Your task to perform on an android device: Search for vegetarian restaurants on Maps Image 0: 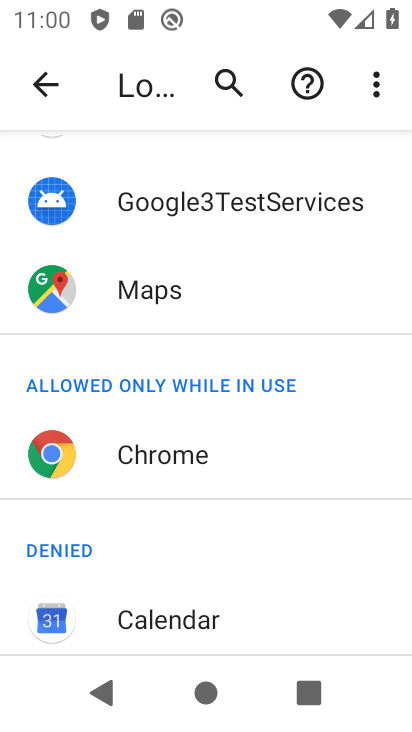
Step 0: press home button
Your task to perform on an android device: Search for vegetarian restaurants on Maps Image 1: 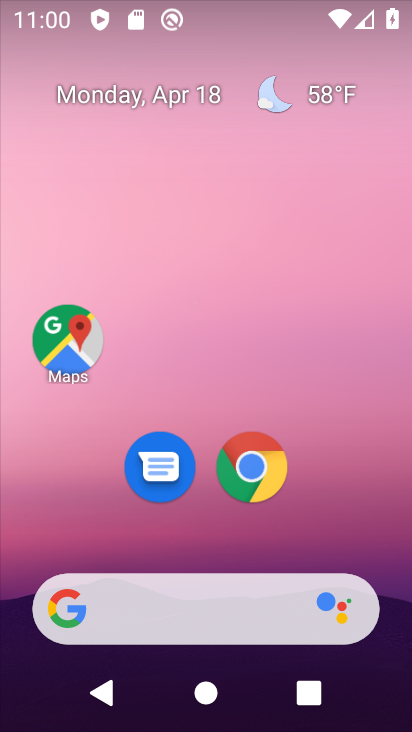
Step 1: click (77, 347)
Your task to perform on an android device: Search for vegetarian restaurants on Maps Image 2: 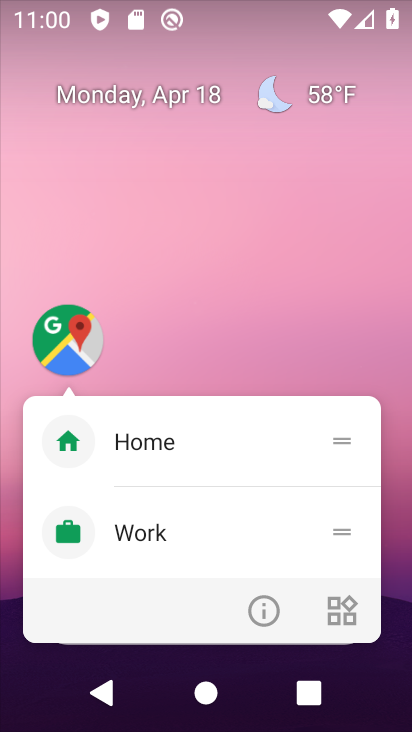
Step 2: click (73, 341)
Your task to perform on an android device: Search for vegetarian restaurants on Maps Image 3: 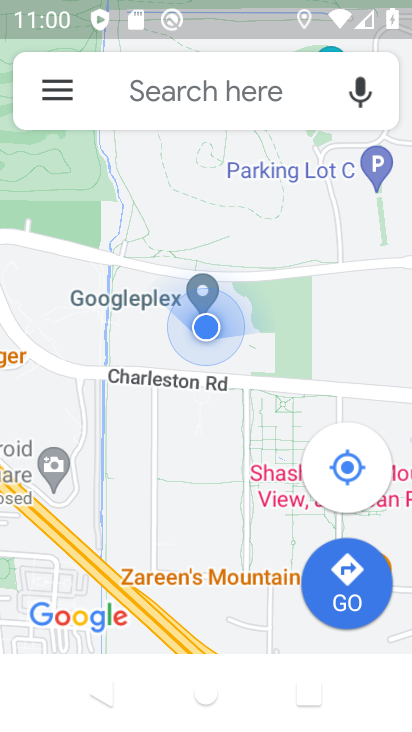
Step 3: click (202, 92)
Your task to perform on an android device: Search for vegetarian restaurants on Maps Image 4: 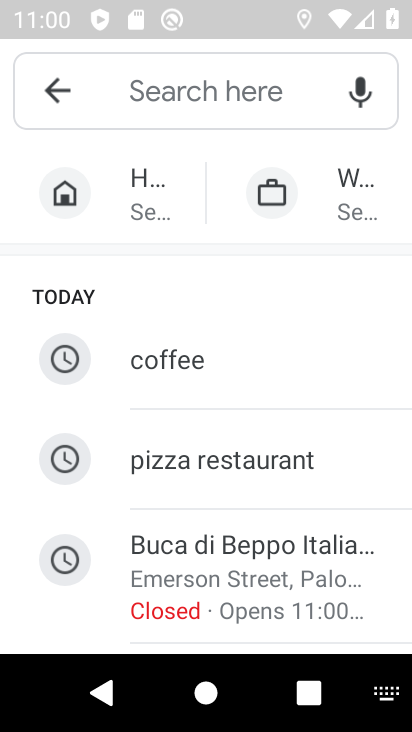
Step 4: drag from (109, 513) to (118, 244)
Your task to perform on an android device: Search for vegetarian restaurants on Maps Image 5: 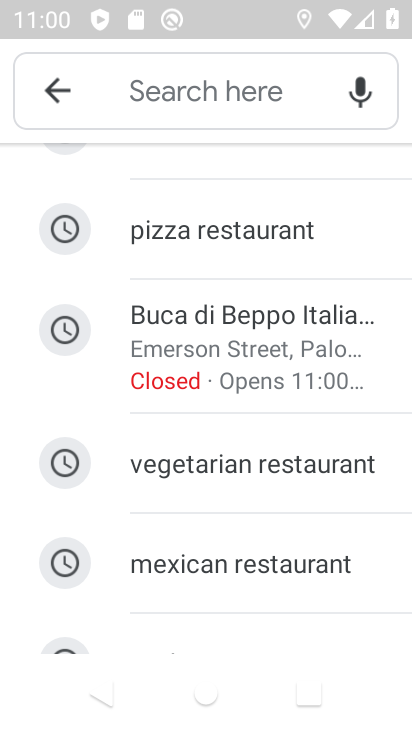
Step 5: click (214, 465)
Your task to perform on an android device: Search for vegetarian restaurants on Maps Image 6: 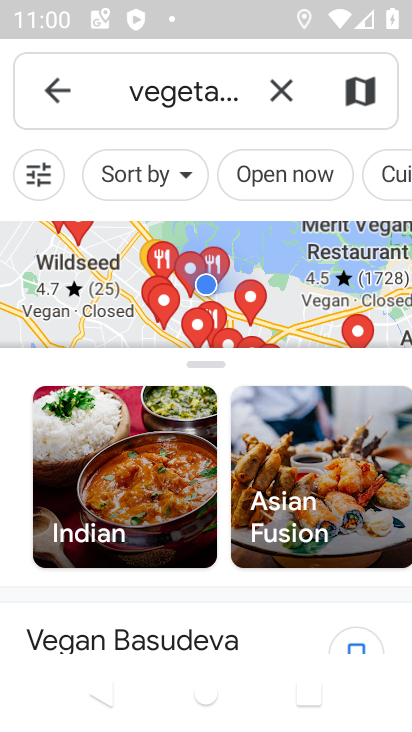
Step 6: task complete